Your task to perform on an android device: turn off translation in the chrome app Image 0: 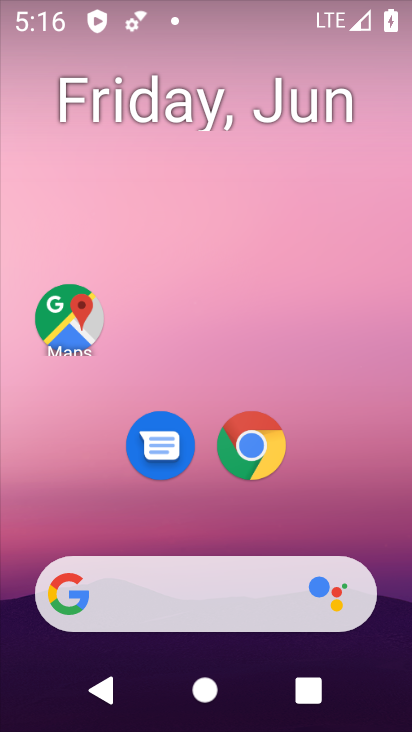
Step 0: drag from (387, 591) to (332, 83)
Your task to perform on an android device: turn off translation in the chrome app Image 1: 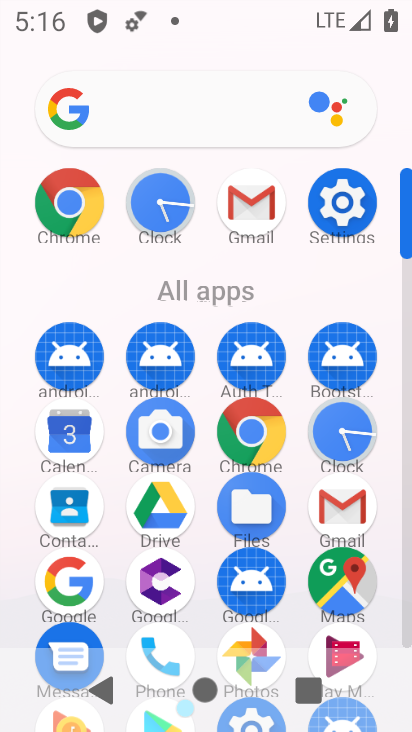
Step 1: drag from (9, 576) to (27, 198)
Your task to perform on an android device: turn off translation in the chrome app Image 2: 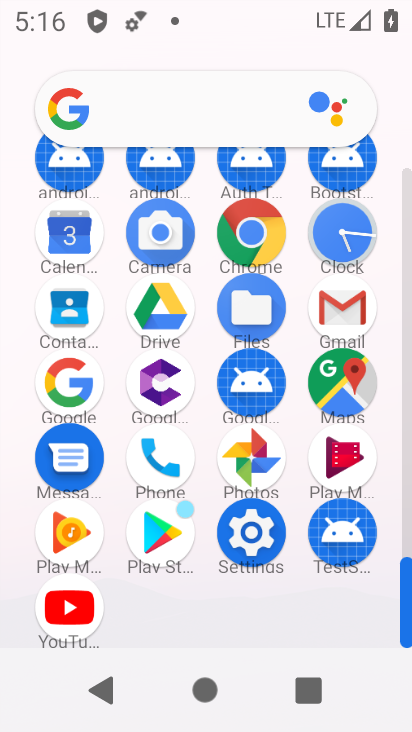
Step 2: click (246, 226)
Your task to perform on an android device: turn off translation in the chrome app Image 3: 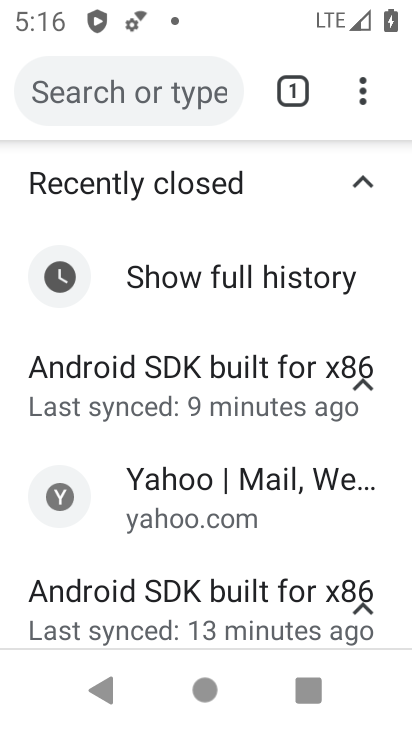
Step 3: drag from (363, 96) to (131, 474)
Your task to perform on an android device: turn off translation in the chrome app Image 4: 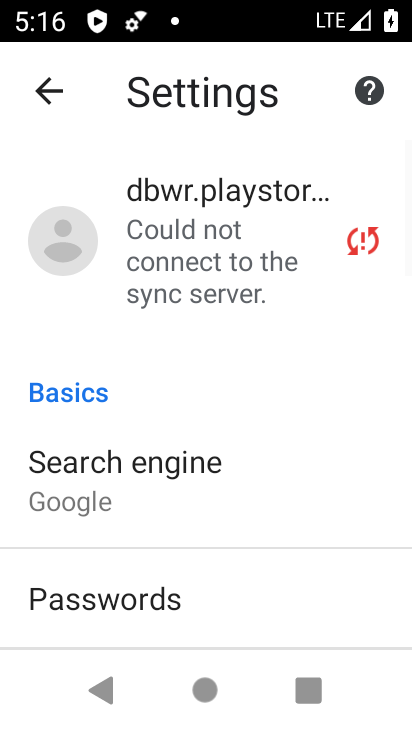
Step 4: drag from (222, 508) to (219, 153)
Your task to perform on an android device: turn off translation in the chrome app Image 5: 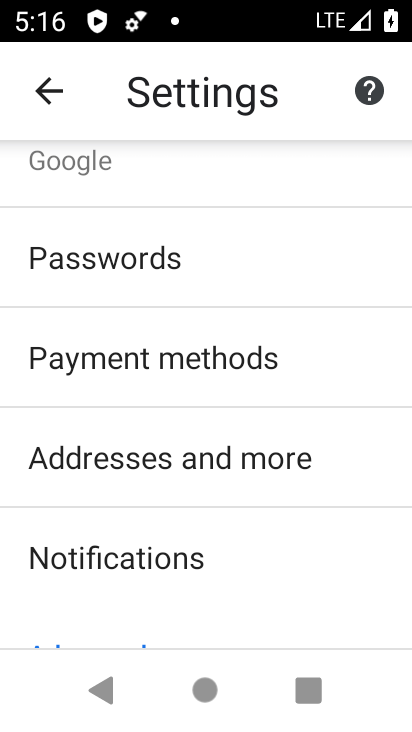
Step 5: drag from (247, 543) to (249, 169)
Your task to perform on an android device: turn off translation in the chrome app Image 6: 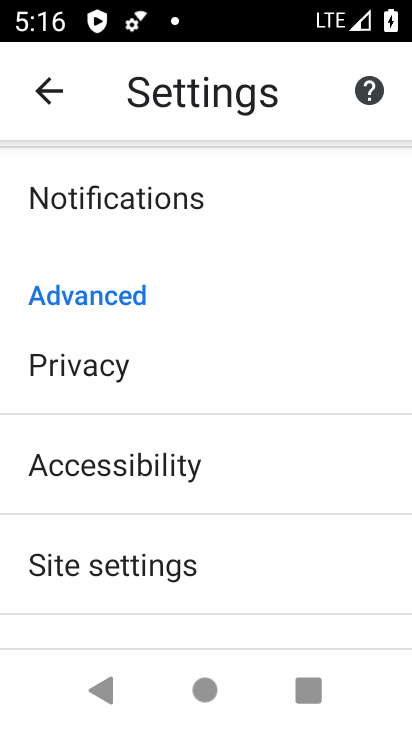
Step 6: drag from (192, 564) to (217, 215)
Your task to perform on an android device: turn off translation in the chrome app Image 7: 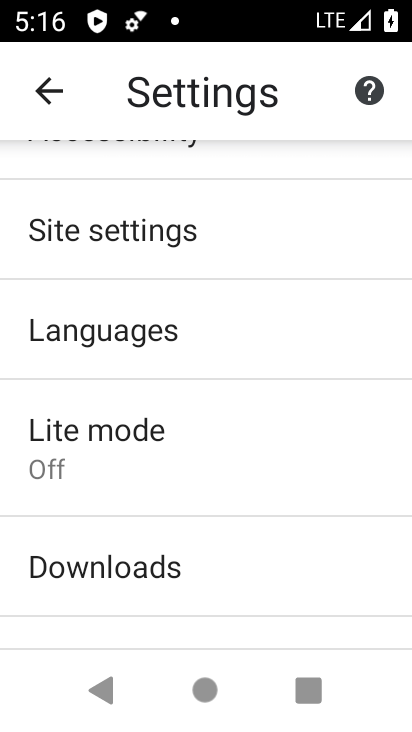
Step 7: click (168, 428)
Your task to perform on an android device: turn off translation in the chrome app Image 8: 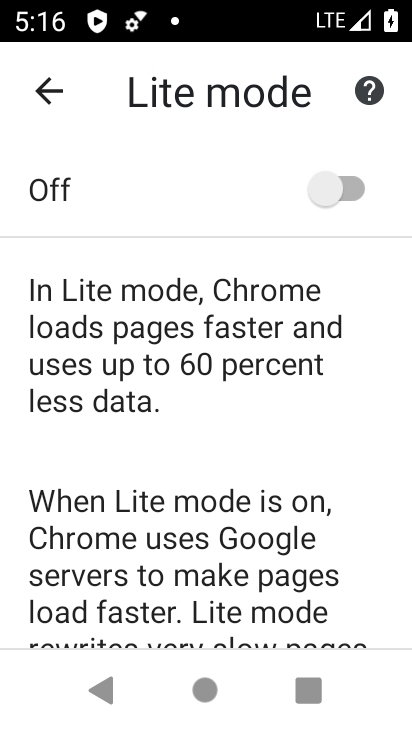
Step 8: click (43, 85)
Your task to perform on an android device: turn off translation in the chrome app Image 9: 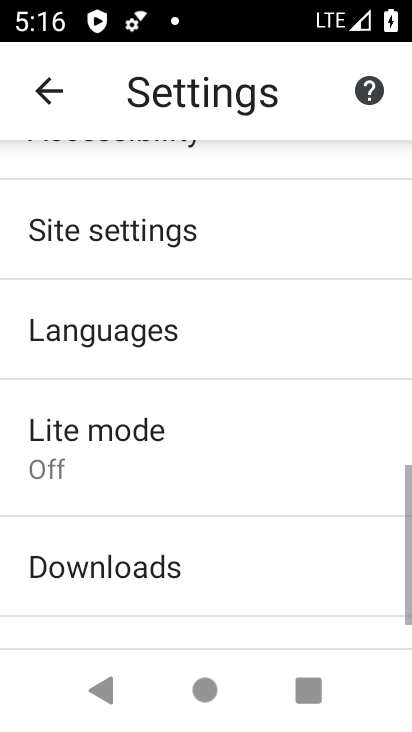
Step 9: click (120, 322)
Your task to perform on an android device: turn off translation in the chrome app Image 10: 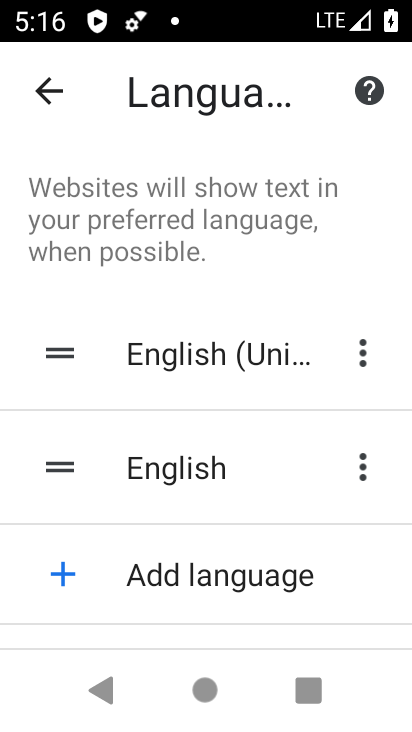
Step 10: drag from (218, 566) to (217, 154)
Your task to perform on an android device: turn off translation in the chrome app Image 11: 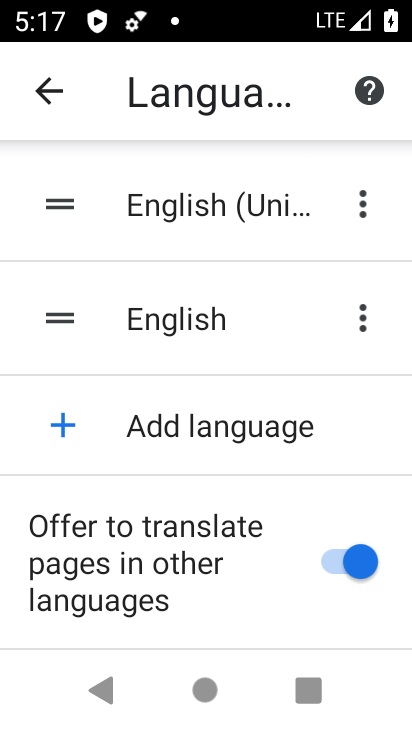
Step 11: click (335, 573)
Your task to perform on an android device: turn off translation in the chrome app Image 12: 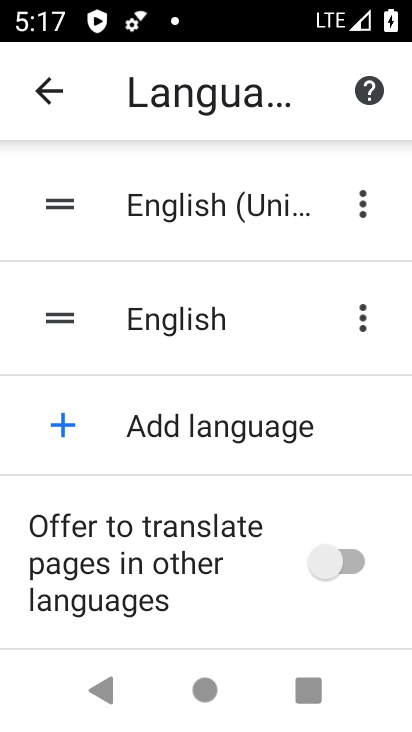
Step 12: task complete